Your task to perform on an android device: snooze an email in the gmail app Image 0: 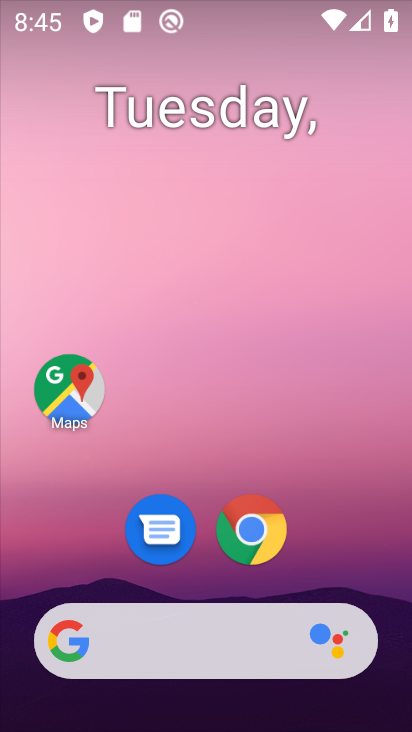
Step 0: drag from (384, 556) to (373, 131)
Your task to perform on an android device: snooze an email in the gmail app Image 1: 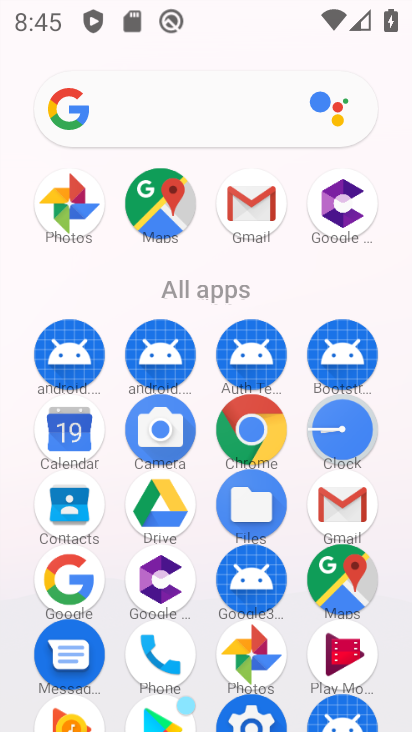
Step 1: click (343, 494)
Your task to perform on an android device: snooze an email in the gmail app Image 2: 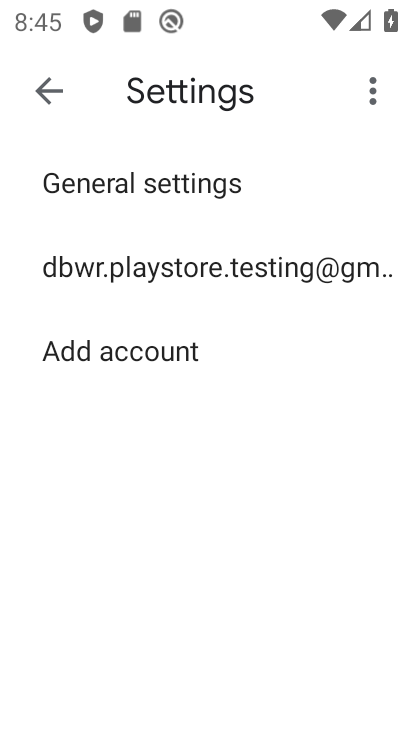
Step 2: press back button
Your task to perform on an android device: snooze an email in the gmail app Image 3: 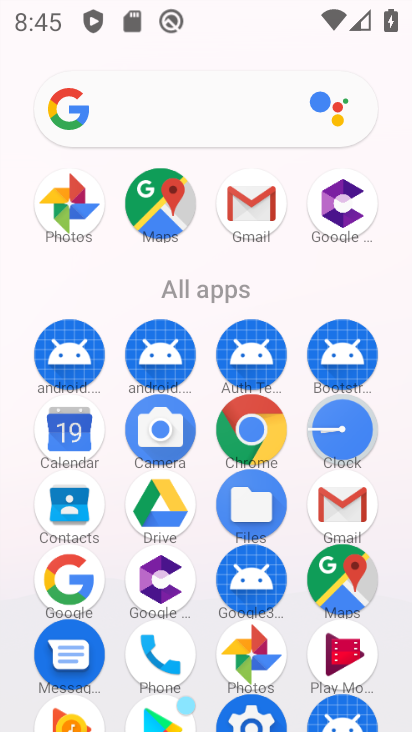
Step 3: click (363, 497)
Your task to perform on an android device: snooze an email in the gmail app Image 4: 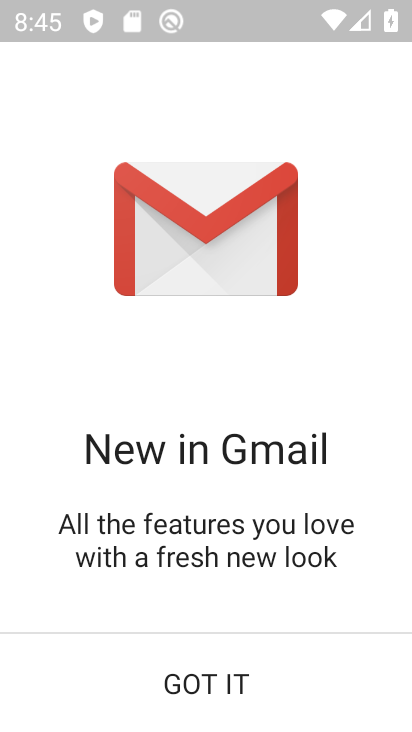
Step 4: click (231, 691)
Your task to perform on an android device: snooze an email in the gmail app Image 5: 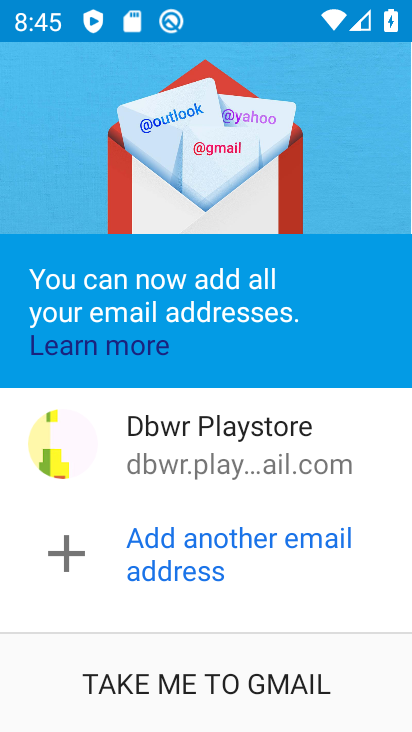
Step 5: click (233, 683)
Your task to perform on an android device: snooze an email in the gmail app Image 6: 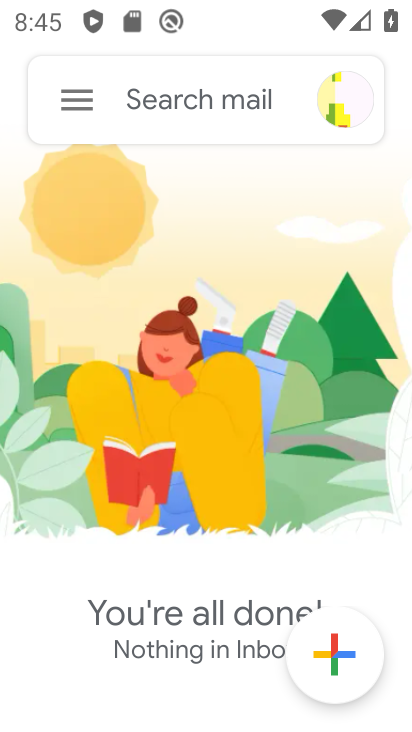
Step 6: click (82, 104)
Your task to perform on an android device: snooze an email in the gmail app Image 7: 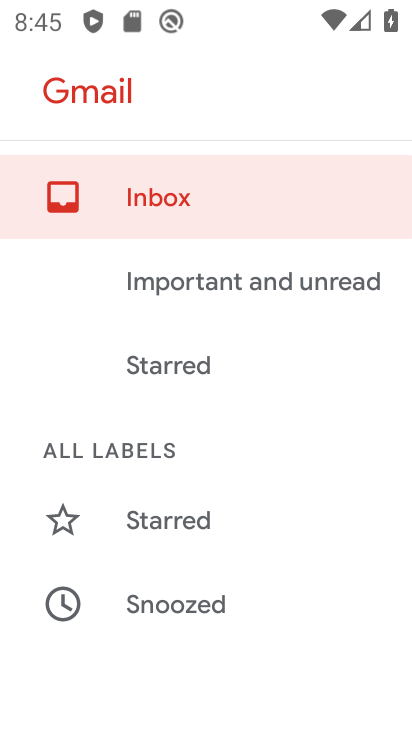
Step 7: click (163, 600)
Your task to perform on an android device: snooze an email in the gmail app Image 8: 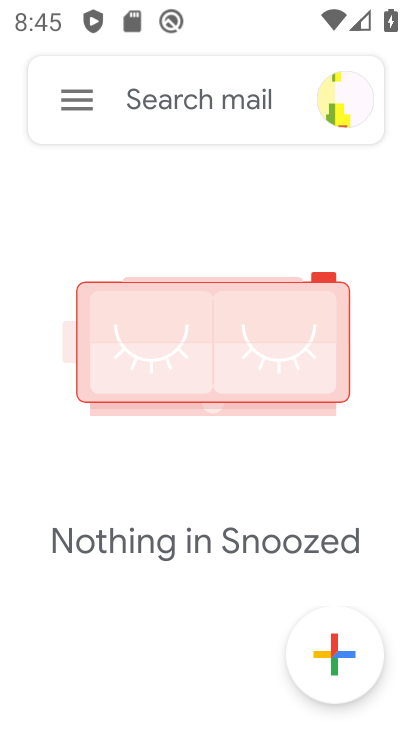
Step 8: task complete